Your task to perform on an android device: Show me productivity apps on the Play Store Image 0: 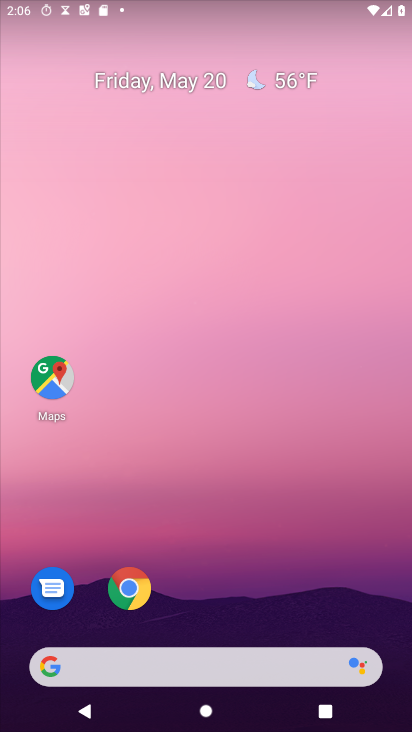
Step 0: drag from (60, 467) to (315, 143)
Your task to perform on an android device: Show me productivity apps on the Play Store Image 1: 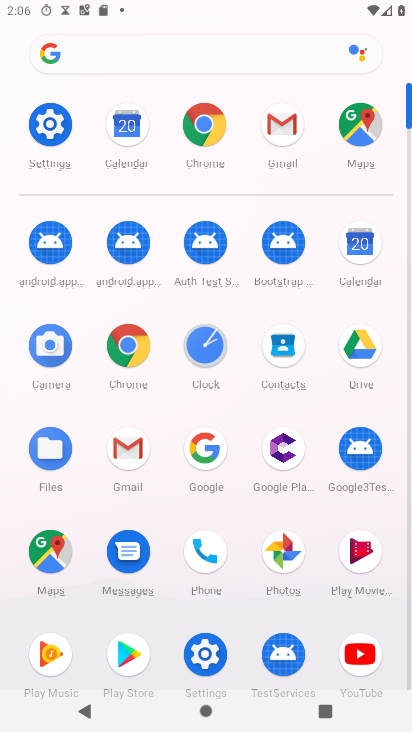
Step 1: click (115, 652)
Your task to perform on an android device: Show me productivity apps on the Play Store Image 2: 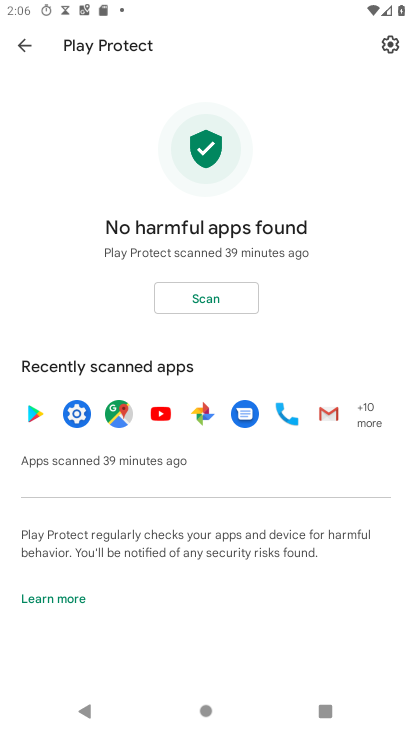
Step 2: press home button
Your task to perform on an android device: Show me productivity apps on the Play Store Image 3: 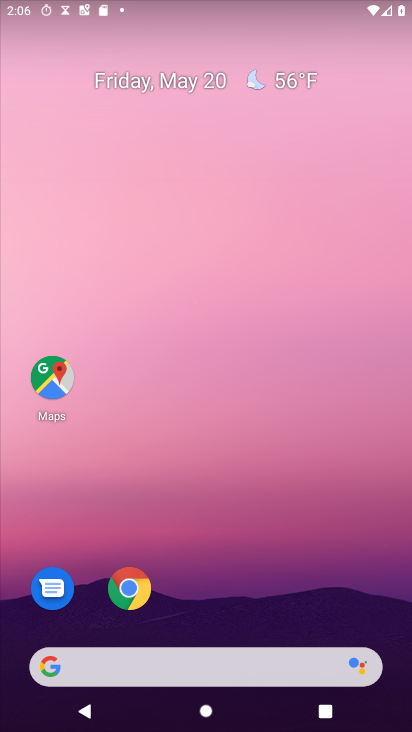
Step 3: drag from (34, 569) to (255, 173)
Your task to perform on an android device: Show me productivity apps on the Play Store Image 4: 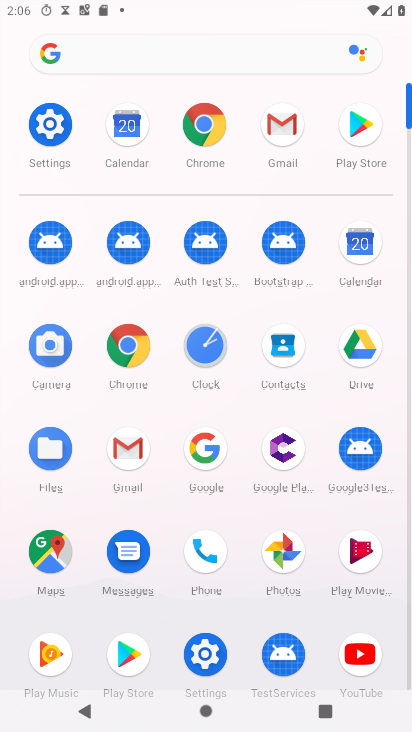
Step 4: click (121, 644)
Your task to perform on an android device: Show me productivity apps on the Play Store Image 5: 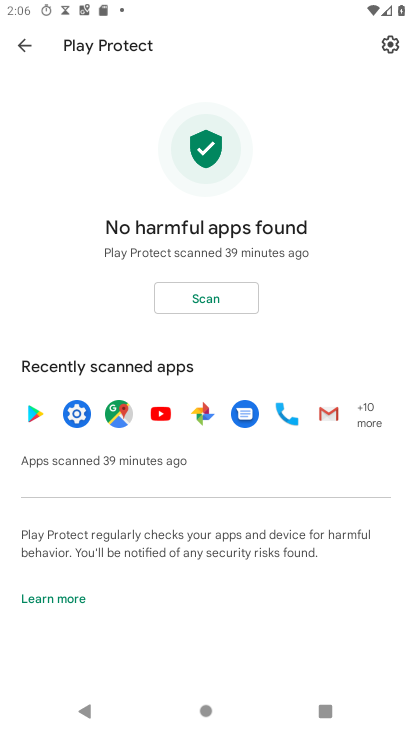
Step 5: task complete